Your task to perform on an android device: empty trash in the gmail app Image 0: 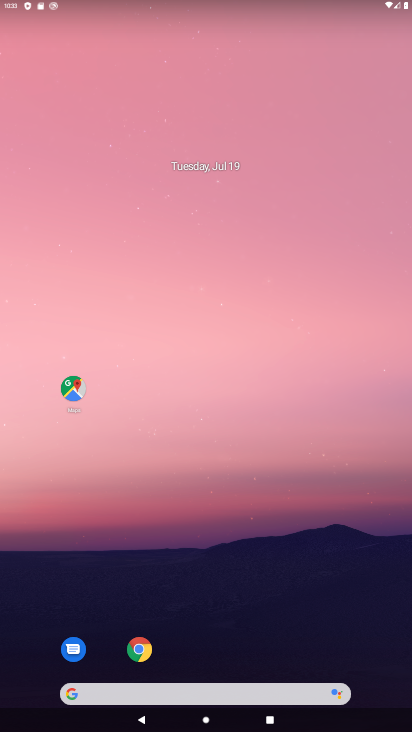
Step 0: drag from (248, 495) to (319, 0)
Your task to perform on an android device: empty trash in the gmail app Image 1: 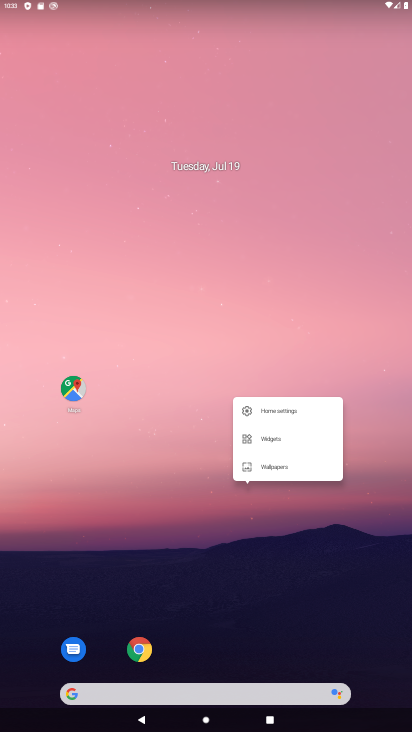
Step 1: drag from (247, 639) to (285, 97)
Your task to perform on an android device: empty trash in the gmail app Image 2: 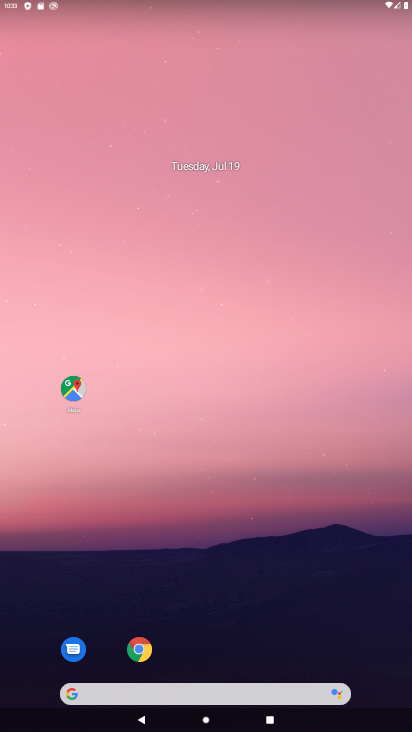
Step 2: drag from (264, 641) to (329, 71)
Your task to perform on an android device: empty trash in the gmail app Image 3: 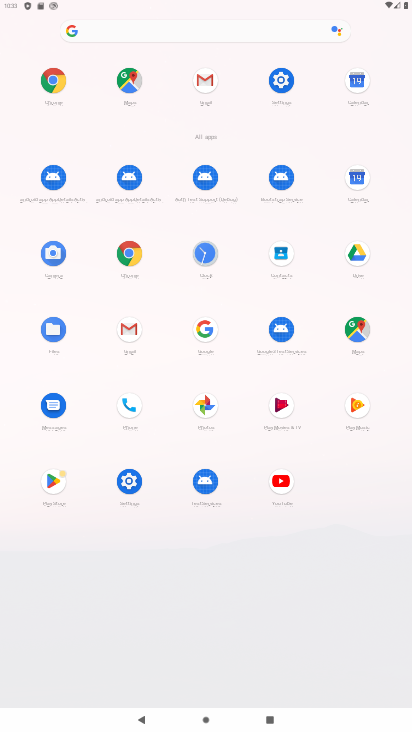
Step 3: click (122, 339)
Your task to perform on an android device: empty trash in the gmail app Image 4: 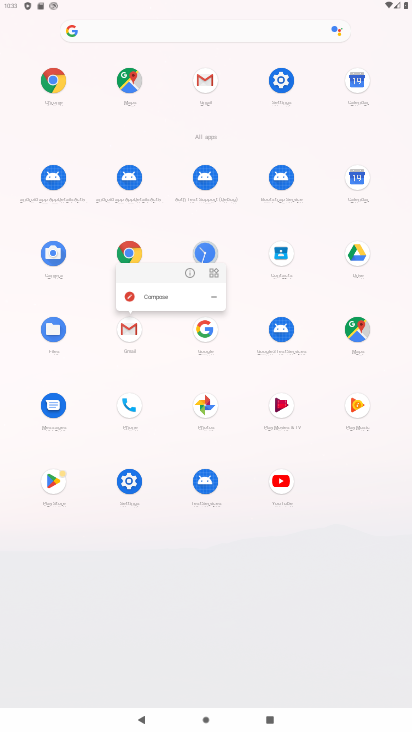
Step 4: click (138, 335)
Your task to perform on an android device: empty trash in the gmail app Image 5: 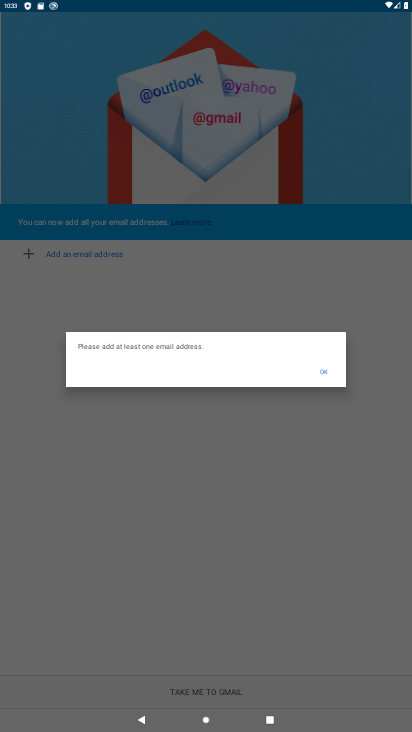
Step 5: task complete